Your task to perform on an android device: delete location history Image 0: 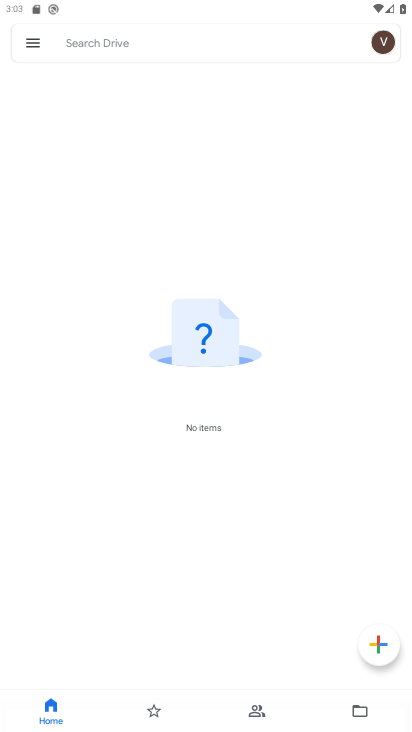
Step 0: press home button
Your task to perform on an android device: delete location history Image 1: 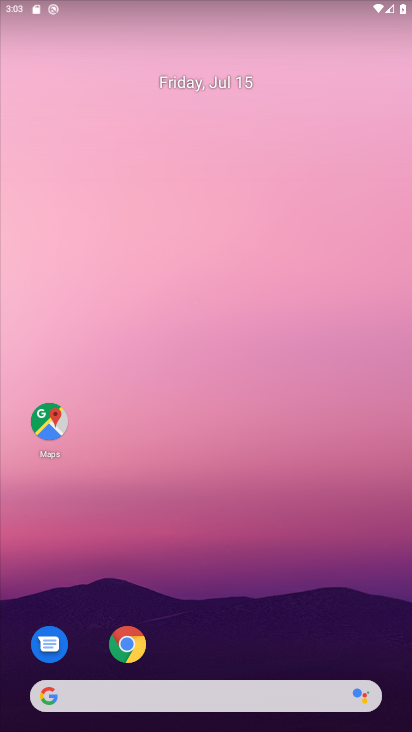
Step 1: drag from (248, 626) to (316, 114)
Your task to perform on an android device: delete location history Image 2: 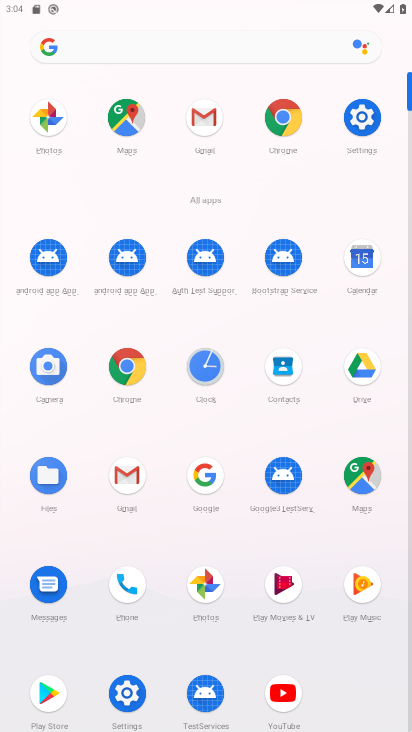
Step 2: click (373, 463)
Your task to perform on an android device: delete location history Image 3: 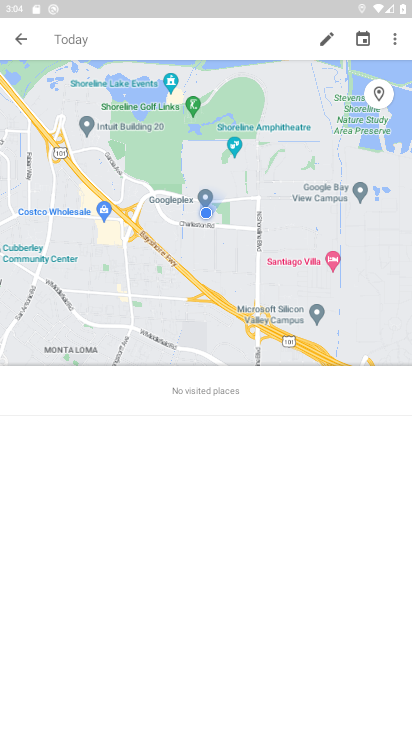
Step 3: click (26, 51)
Your task to perform on an android device: delete location history Image 4: 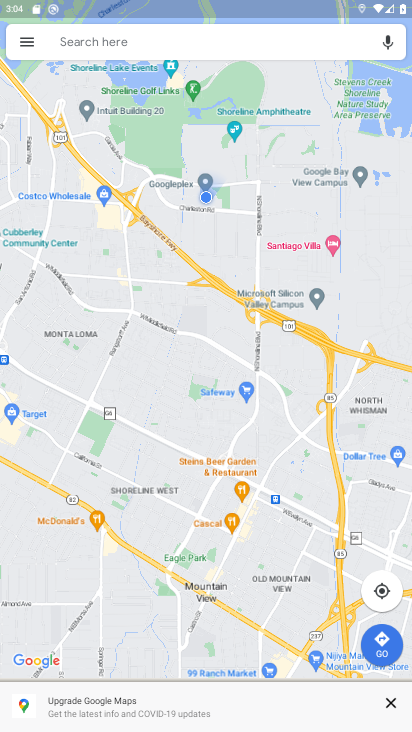
Step 4: click (28, 43)
Your task to perform on an android device: delete location history Image 5: 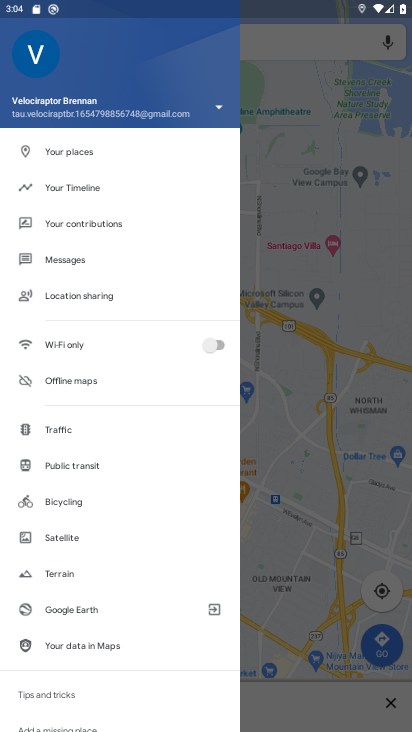
Step 5: drag from (65, 677) to (127, 221)
Your task to perform on an android device: delete location history Image 6: 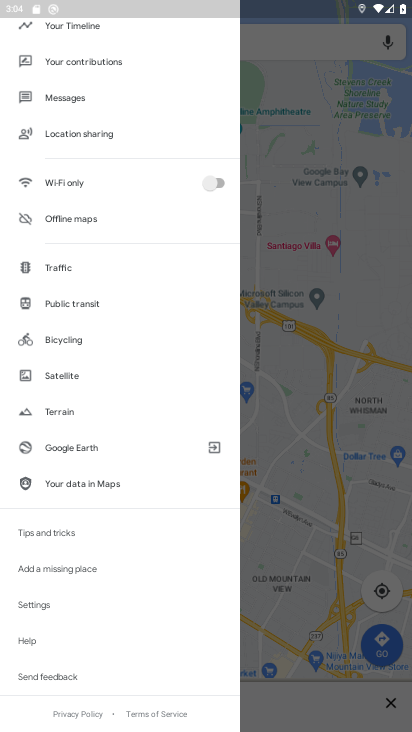
Step 6: click (51, 599)
Your task to perform on an android device: delete location history Image 7: 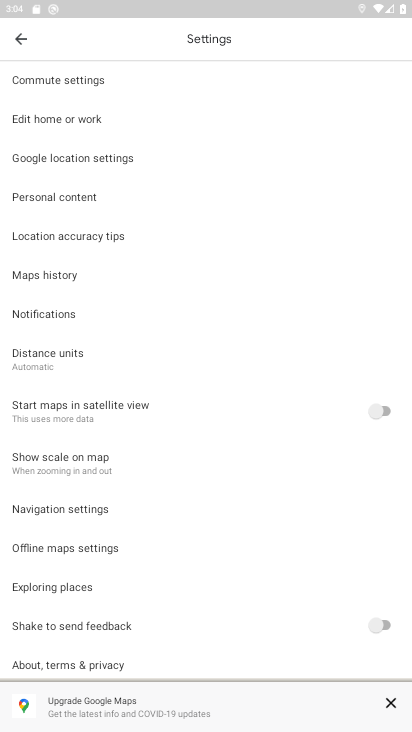
Step 7: drag from (173, 547) to (203, 32)
Your task to perform on an android device: delete location history Image 8: 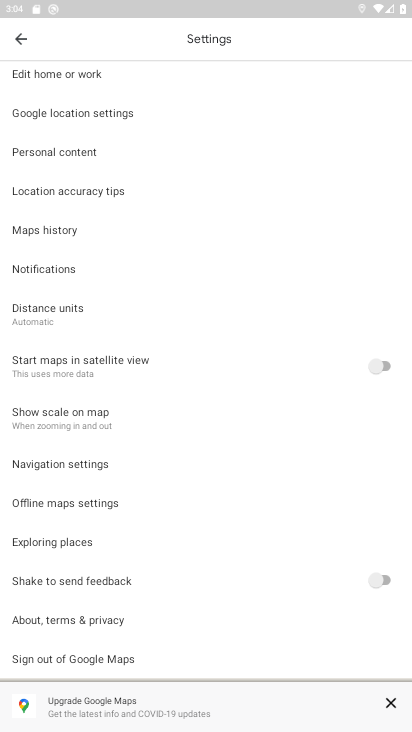
Step 8: click (32, 41)
Your task to perform on an android device: delete location history Image 9: 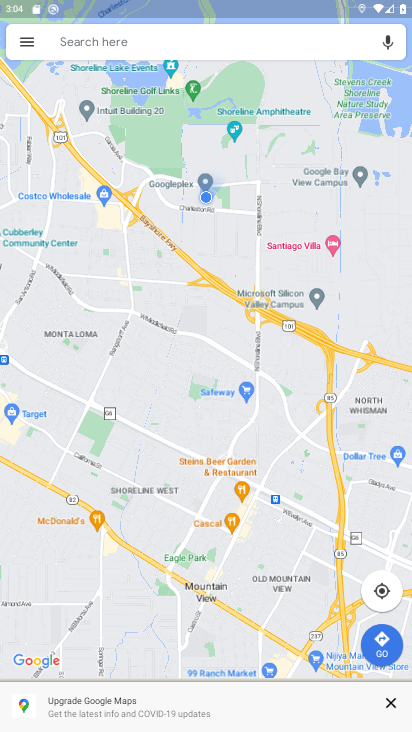
Step 9: click (26, 40)
Your task to perform on an android device: delete location history Image 10: 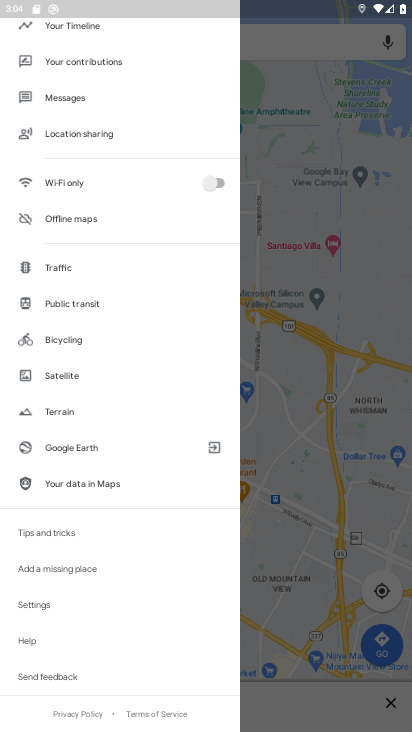
Step 10: drag from (96, 92) to (150, 718)
Your task to perform on an android device: delete location history Image 11: 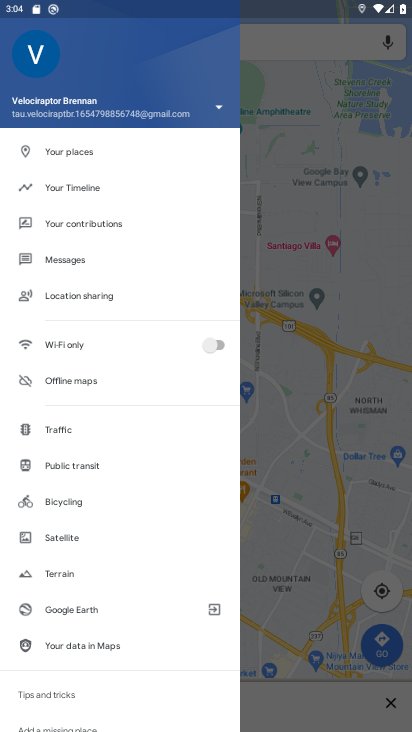
Step 11: click (88, 184)
Your task to perform on an android device: delete location history Image 12: 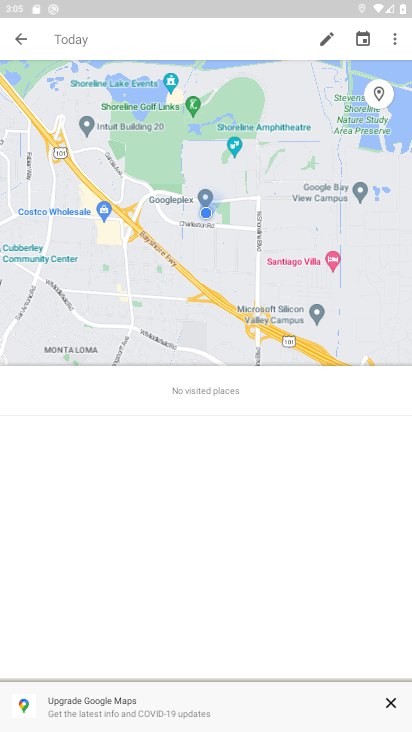
Step 12: click (400, 33)
Your task to perform on an android device: delete location history Image 13: 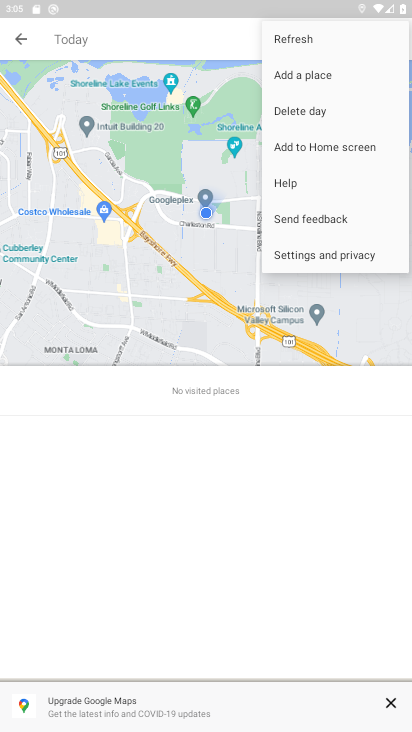
Step 13: click (326, 253)
Your task to perform on an android device: delete location history Image 14: 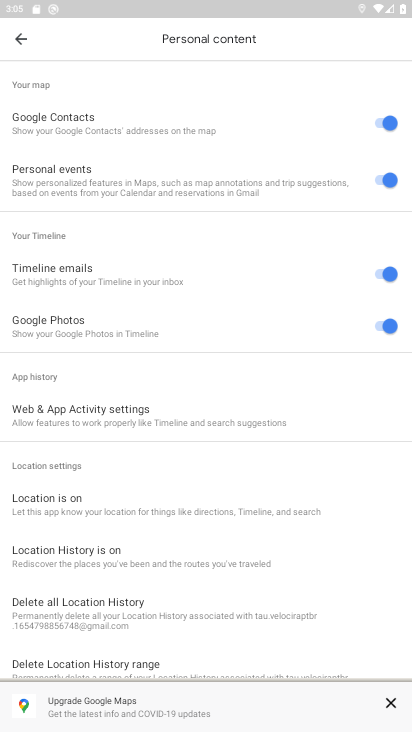
Step 14: click (326, 253)
Your task to perform on an android device: delete location history Image 15: 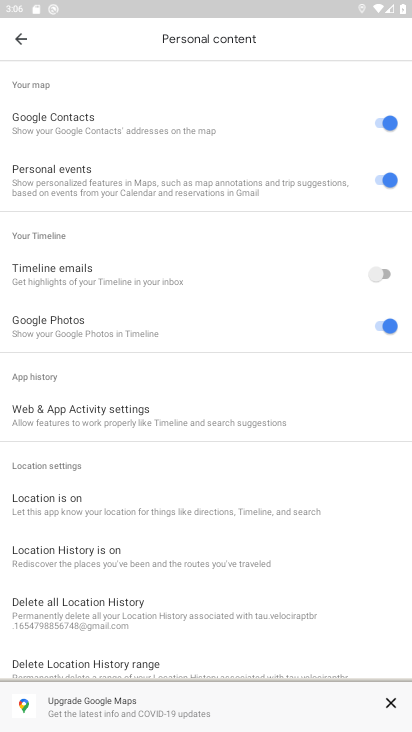
Step 15: click (139, 613)
Your task to perform on an android device: delete location history Image 16: 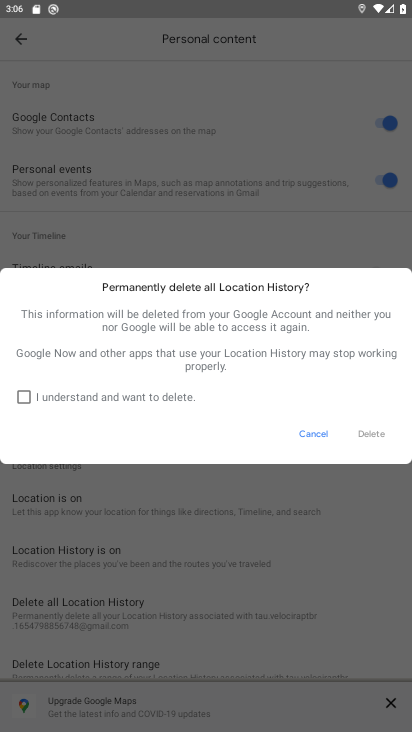
Step 16: click (28, 402)
Your task to perform on an android device: delete location history Image 17: 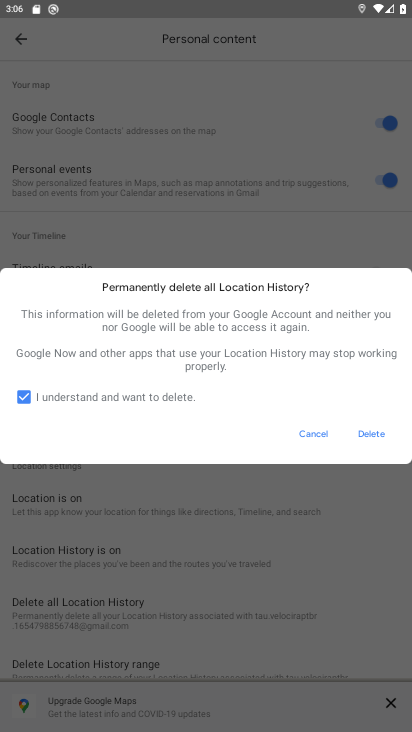
Step 17: click (374, 438)
Your task to perform on an android device: delete location history Image 18: 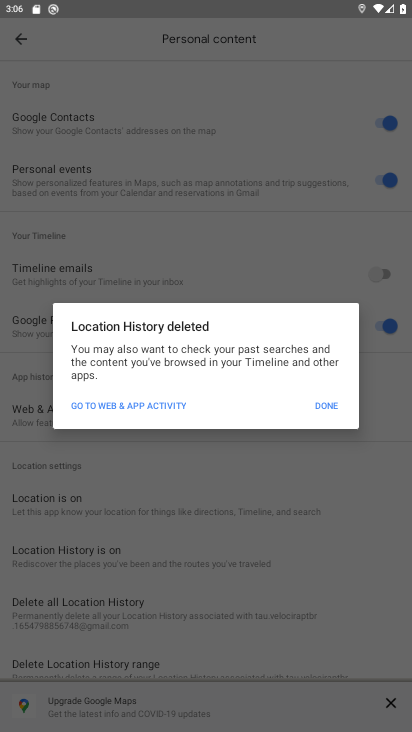
Step 18: click (336, 407)
Your task to perform on an android device: delete location history Image 19: 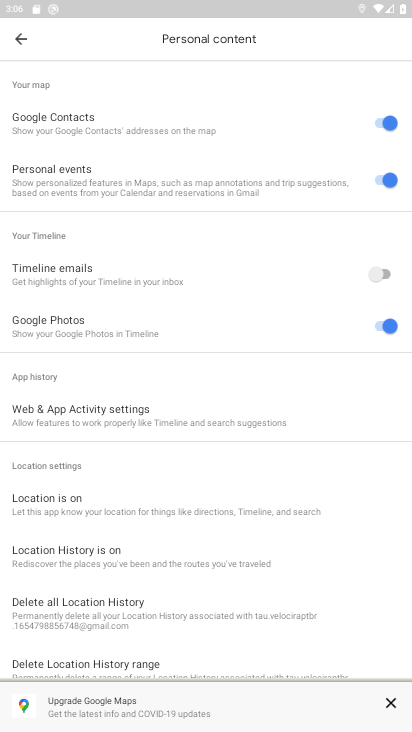
Step 19: task complete